Your task to perform on an android device: turn on the 12-hour format for clock Image 0: 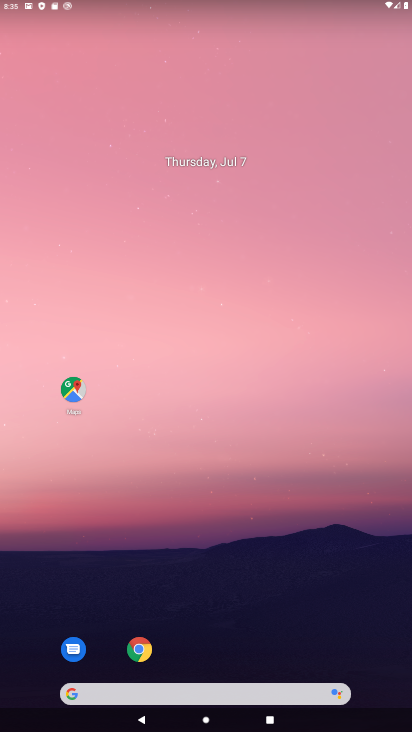
Step 0: drag from (190, 679) to (309, 96)
Your task to perform on an android device: turn on the 12-hour format for clock Image 1: 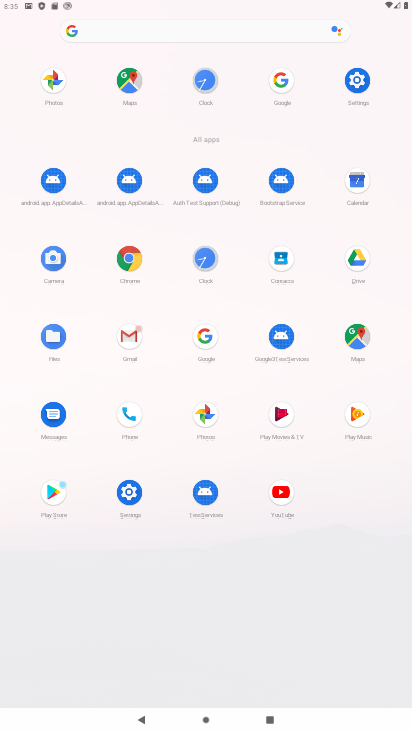
Step 1: click (215, 260)
Your task to perform on an android device: turn on the 12-hour format for clock Image 2: 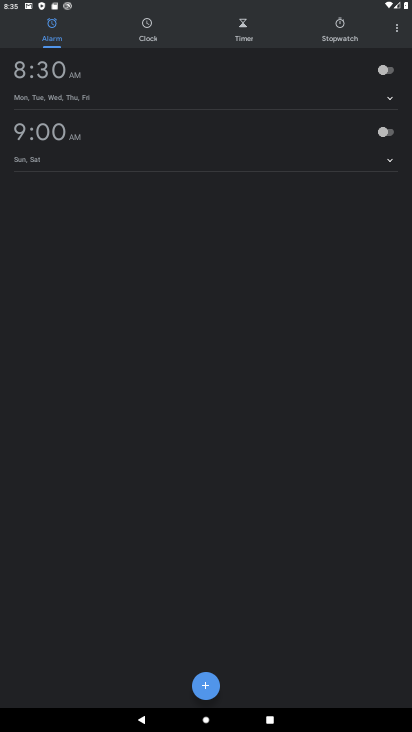
Step 2: click (398, 31)
Your task to perform on an android device: turn on the 12-hour format for clock Image 3: 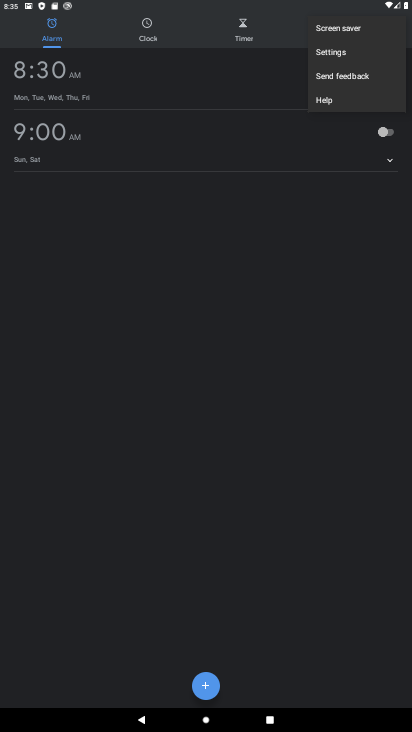
Step 3: click (368, 51)
Your task to perform on an android device: turn on the 12-hour format for clock Image 4: 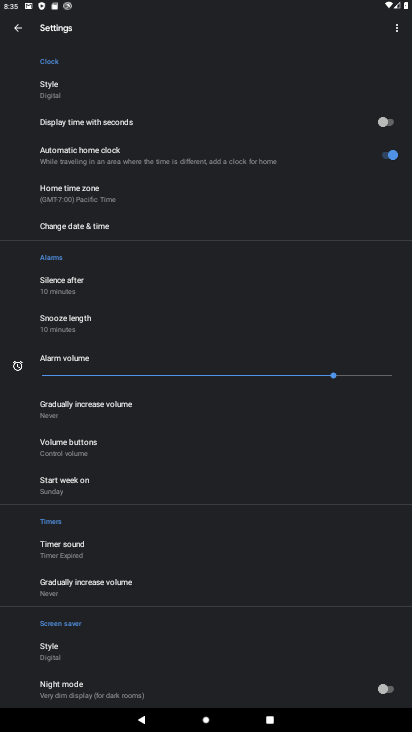
Step 4: click (123, 229)
Your task to perform on an android device: turn on the 12-hour format for clock Image 5: 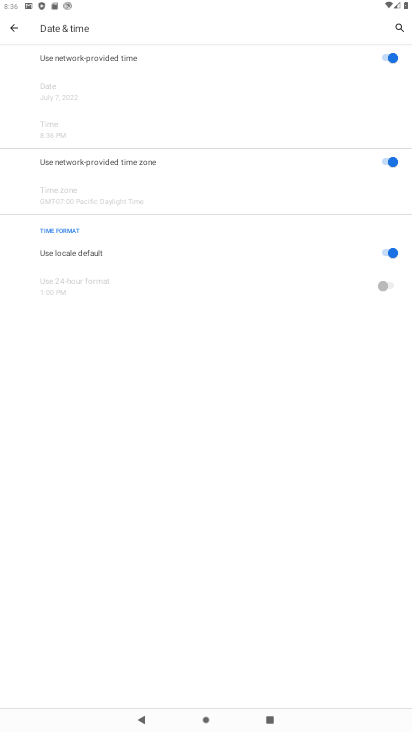
Step 5: task complete